Your task to perform on an android device: empty trash in the gmail app Image 0: 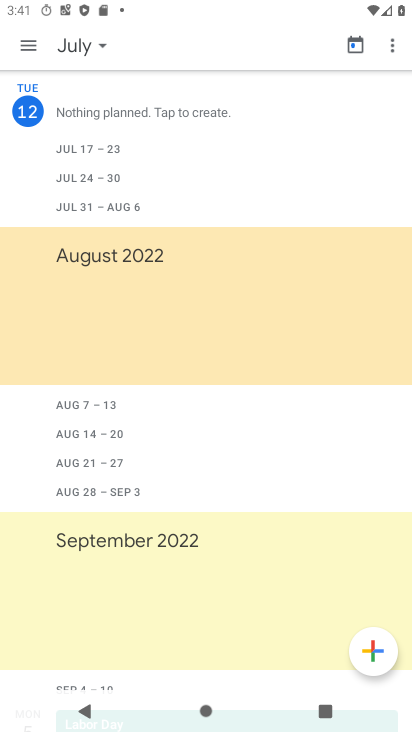
Step 0: press home button
Your task to perform on an android device: empty trash in the gmail app Image 1: 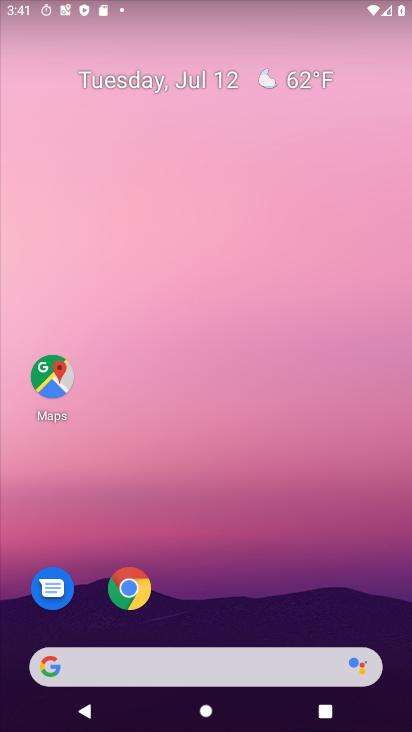
Step 1: drag from (244, 483) to (293, 7)
Your task to perform on an android device: empty trash in the gmail app Image 2: 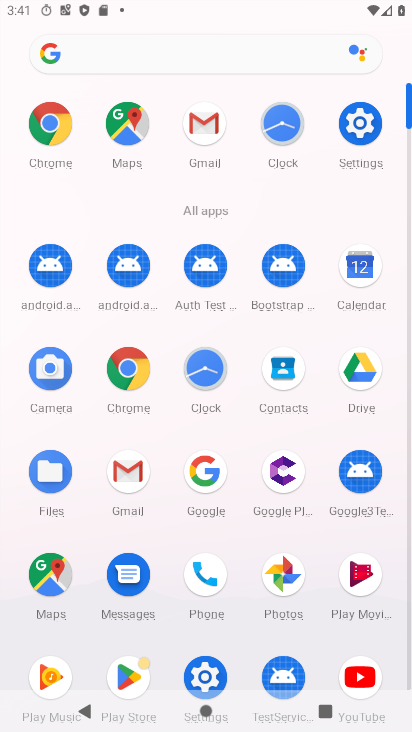
Step 2: click (127, 468)
Your task to perform on an android device: empty trash in the gmail app Image 3: 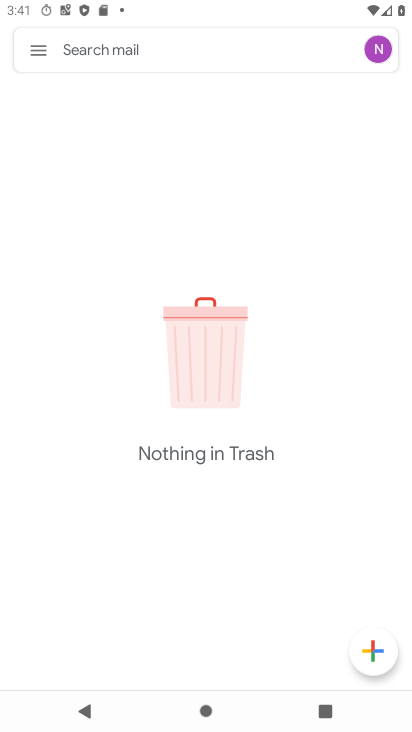
Step 3: task complete